Your task to perform on an android device: delete a single message in the gmail app Image 0: 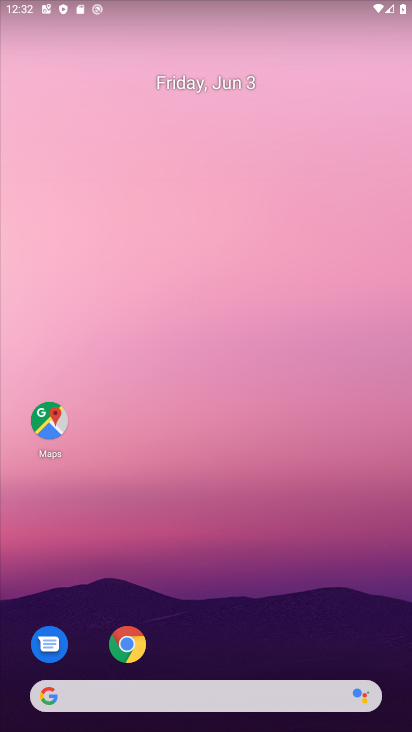
Step 0: drag from (206, 730) to (184, 127)
Your task to perform on an android device: delete a single message in the gmail app Image 1: 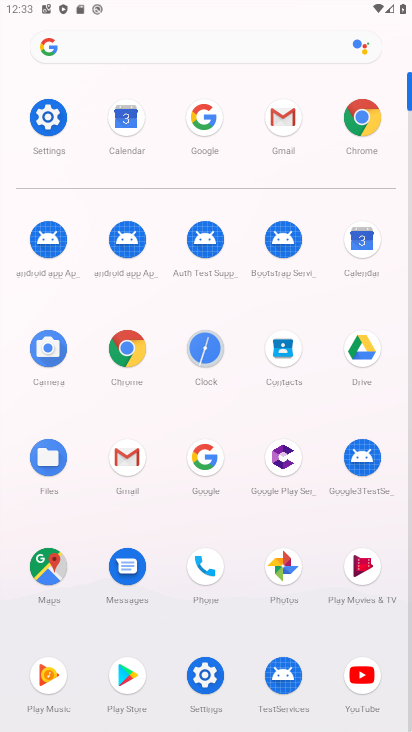
Step 1: click (126, 457)
Your task to perform on an android device: delete a single message in the gmail app Image 2: 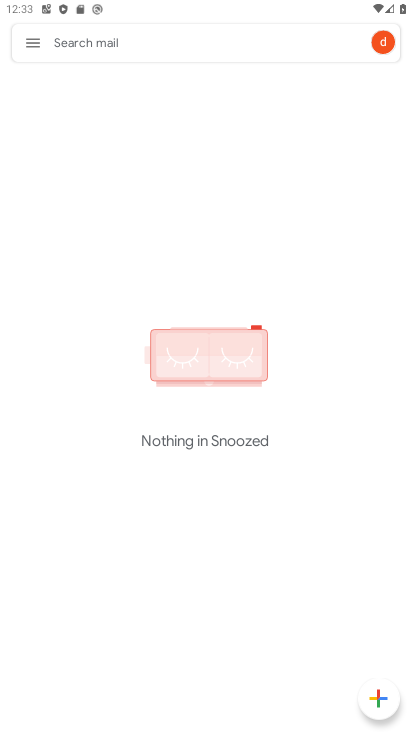
Step 2: click (30, 46)
Your task to perform on an android device: delete a single message in the gmail app Image 3: 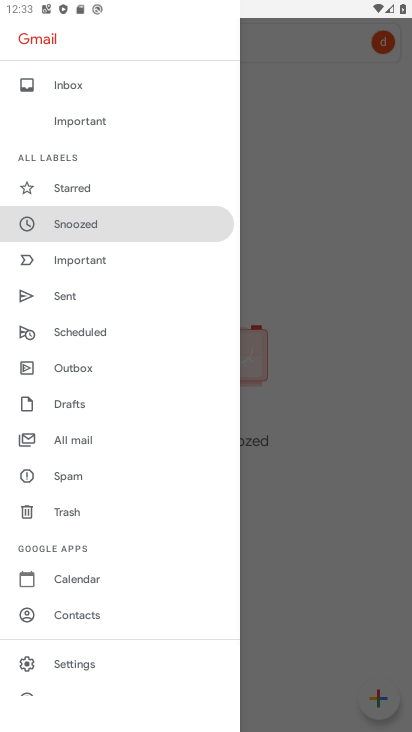
Step 3: click (62, 84)
Your task to perform on an android device: delete a single message in the gmail app Image 4: 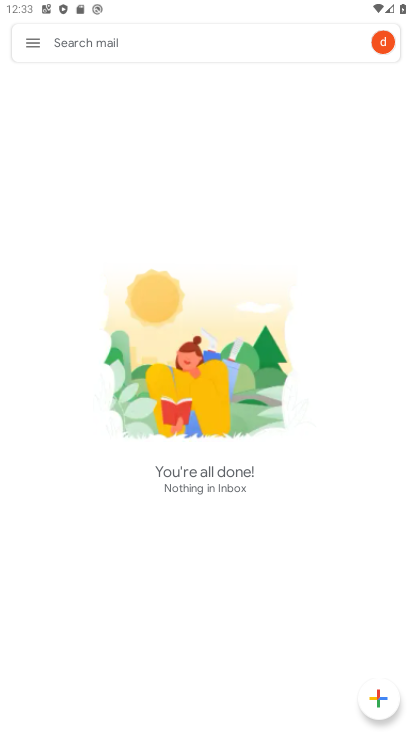
Step 4: task complete